Your task to perform on an android device: delete a single message in the gmail app Image 0: 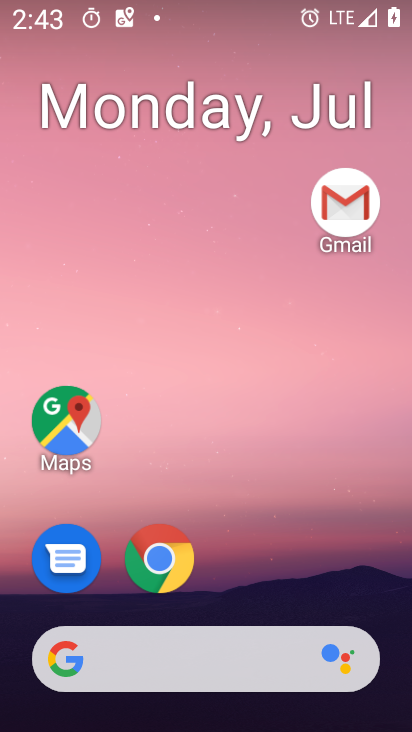
Step 0: drag from (338, 574) to (355, 70)
Your task to perform on an android device: delete a single message in the gmail app Image 1: 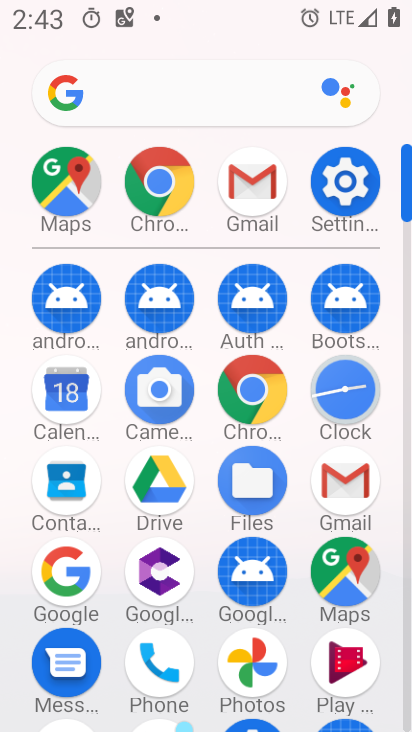
Step 1: click (348, 480)
Your task to perform on an android device: delete a single message in the gmail app Image 2: 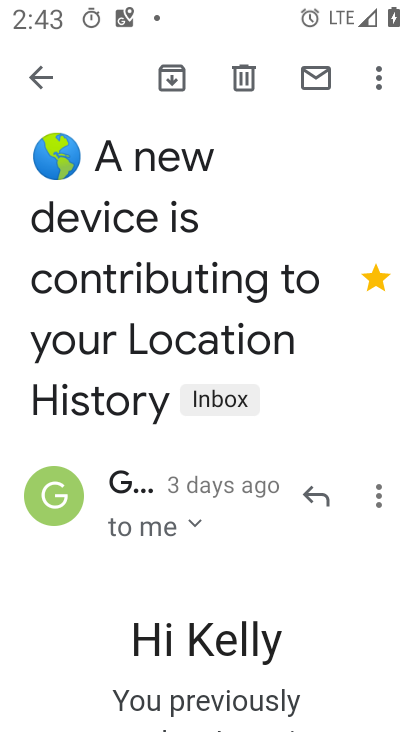
Step 2: press back button
Your task to perform on an android device: delete a single message in the gmail app Image 3: 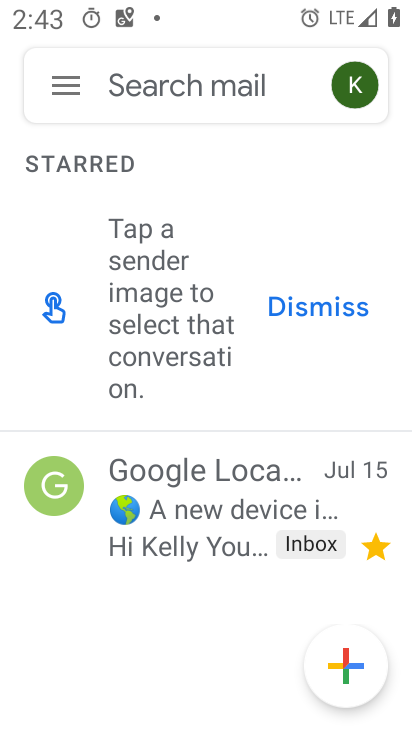
Step 3: press back button
Your task to perform on an android device: delete a single message in the gmail app Image 4: 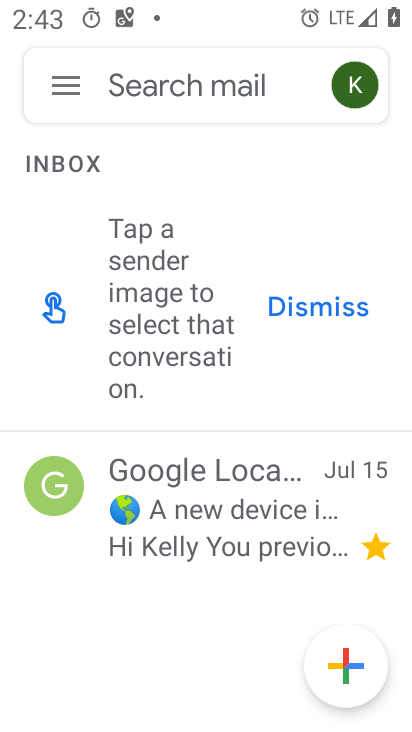
Step 4: click (232, 496)
Your task to perform on an android device: delete a single message in the gmail app Image 5: 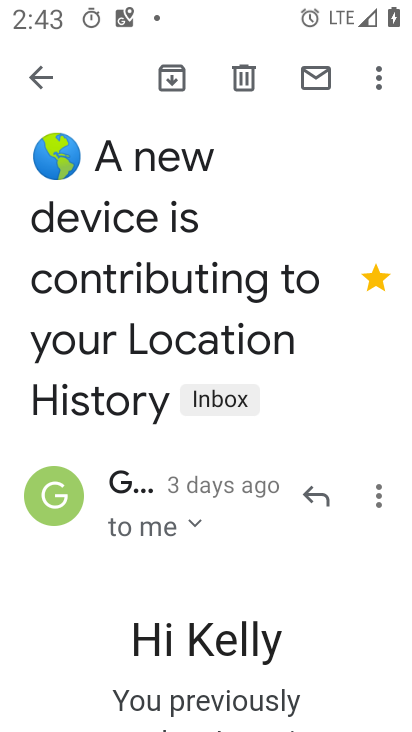
Step 5: click (236, 76)
Your task to perform on an android device: delete a single message in the gmail app Image 6: 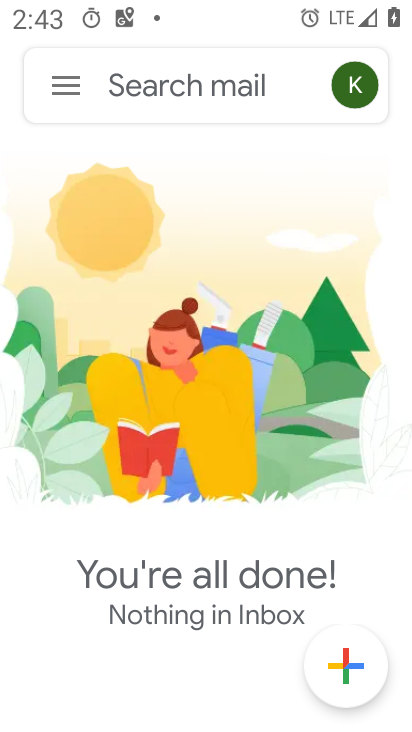
Step 6: task complete